Your task to perform on an android device: Open Google Chrome and open the bookmarks view Image 0: 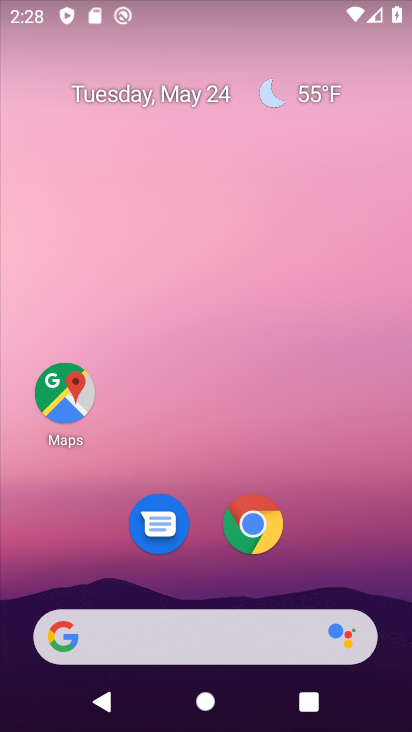
Step 0: click (254, 523)
Your task to perform on an android device: Open Google Chrome and open the bookmarks view Image 1: 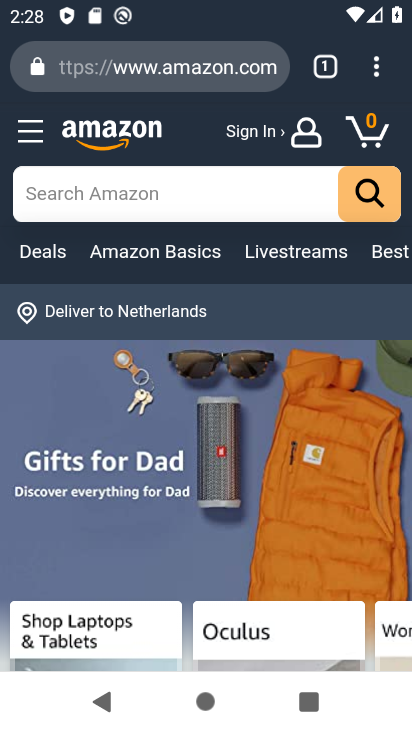
Step 1: click (377, 63)
Your task to perform on an android device: Open Google Chrome and open the bookmarks view Image 2: 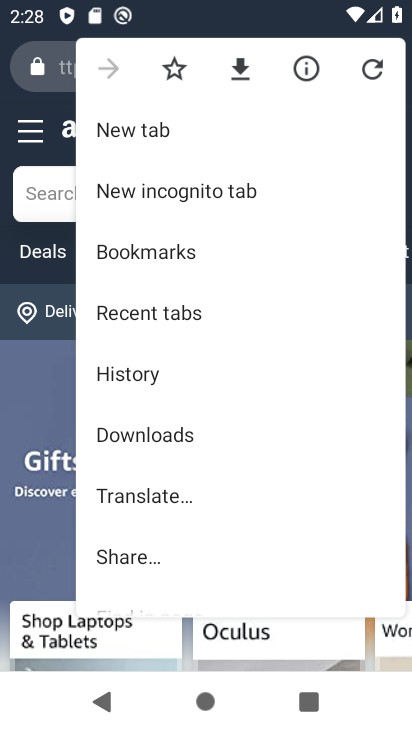
Step 2: click (151, 244)
Your task to perform on an android device: Open Google Chrome and open the bookmarks view Image 3: 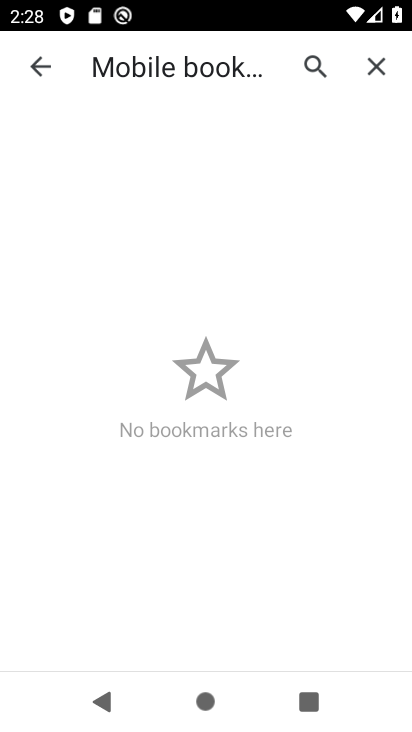
Step 3: task complete